Your task to perform on an android device: Go to Wikipedia Image 0: 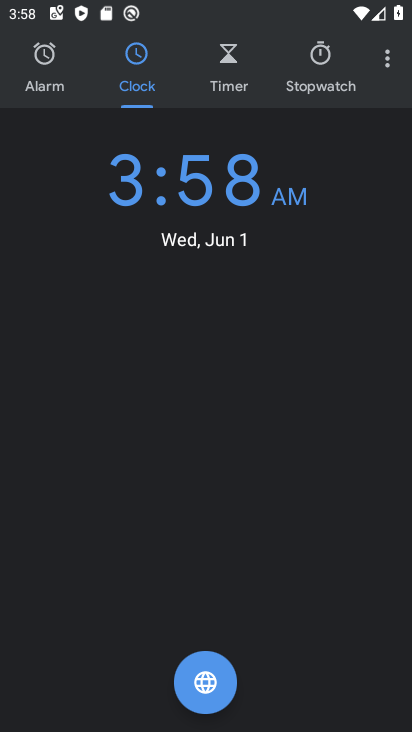
Step 0: press home button
Your task to perform on an android device: Go to Wikipedia Image 1: 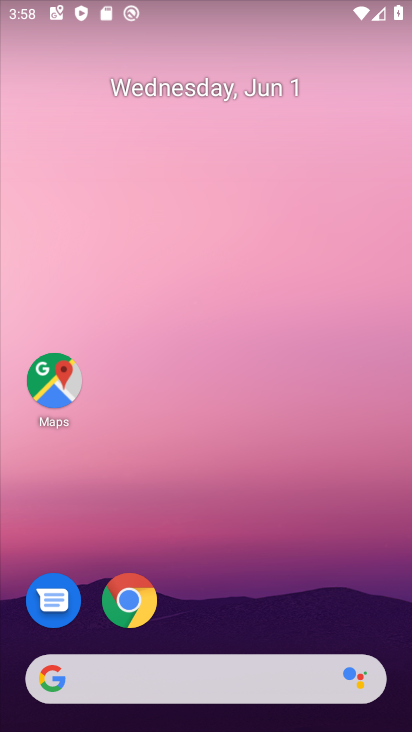
Step 1: click (128, 602)
Your task to perform on an android device: Go to Wikipedia Image 2: 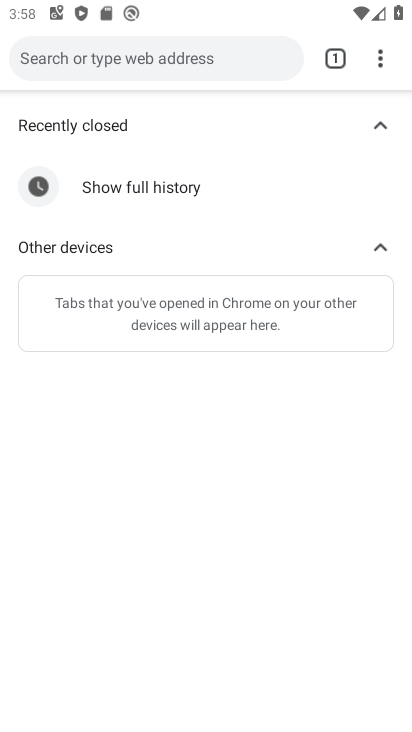
Step 2: click (127, 57)
Your task to perform on an android device: Go to Wikipedia Image 3: 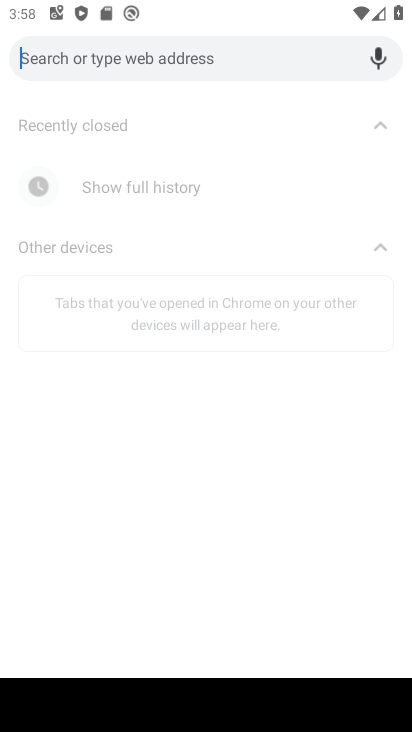
Step 3: type "wikipedia"
Your task to perform on an android device: Go to Wikipedia Image 4: 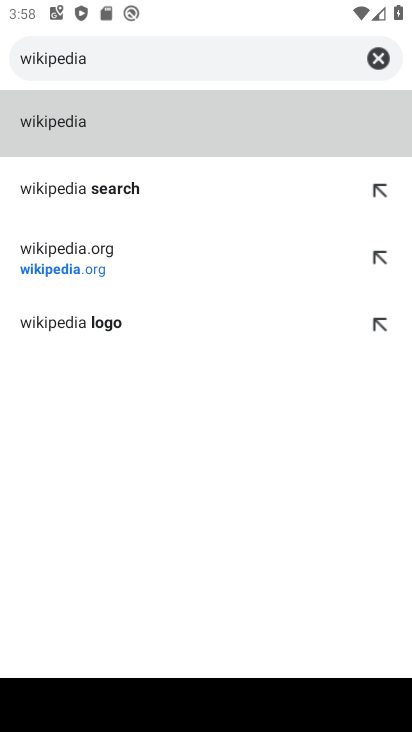
Step 4: click (93, 147)
Your task to perform on an android device: Go to Wikipedia Image 5: 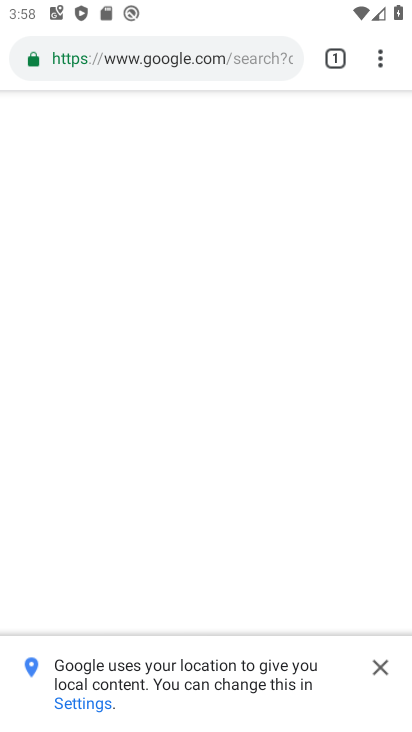
Step 5: click (379, 665)
Your task to perform on an android device: Go to Wikipedia Image 6: 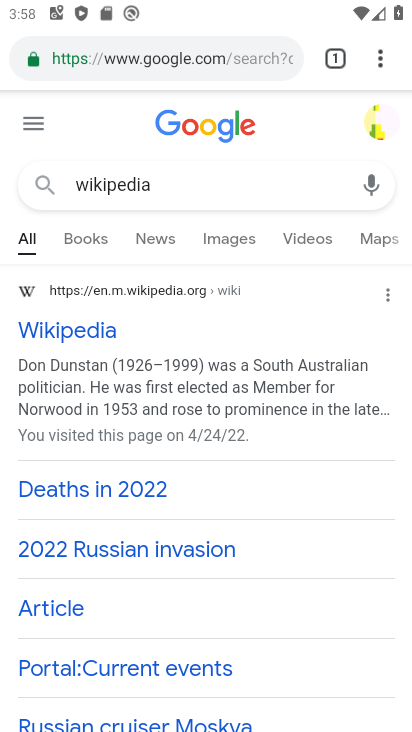
Step 6: click (75, 331)
Your task to perform on an android device: Go to Wikipedia Image 7: 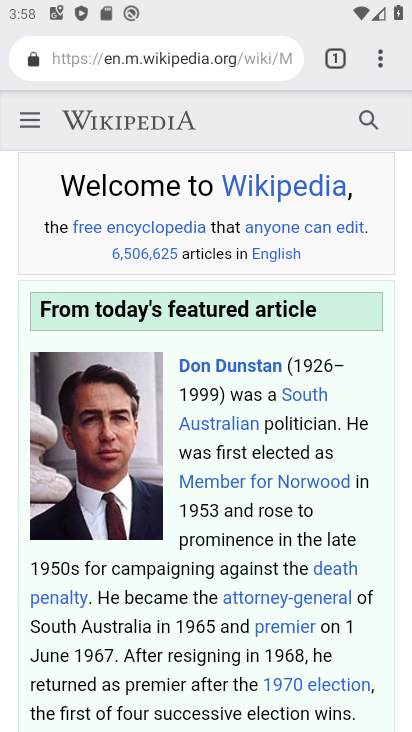
Step 7: task complete